Your task to perform on an android device: open app "The Home Depot" (install if not already installed) Image 0: 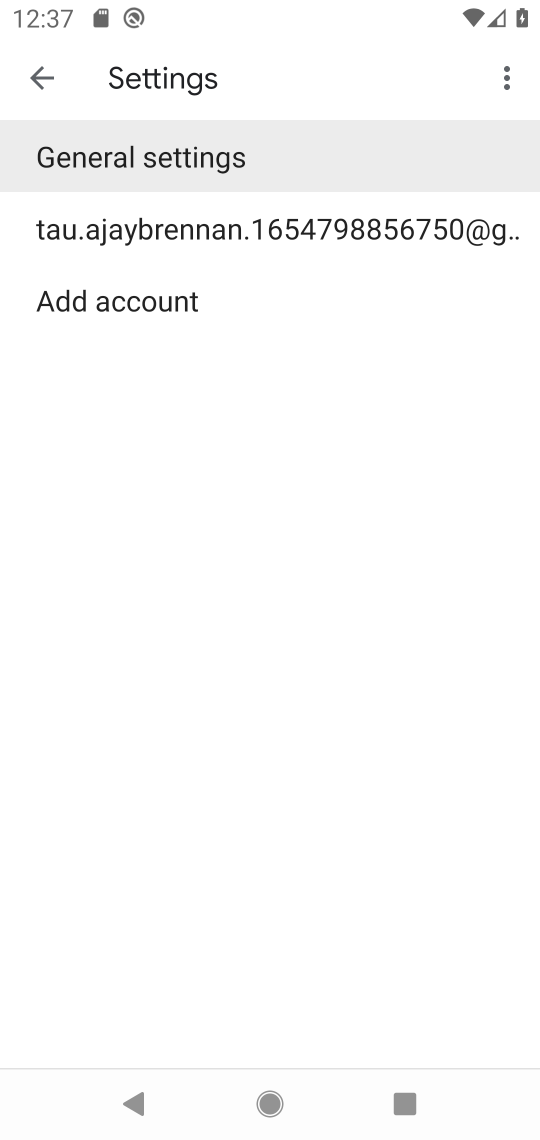
Step 0: press home button
Your task to perform on an android device: open app "The Home Depot" (install if not already installed) Image 1: 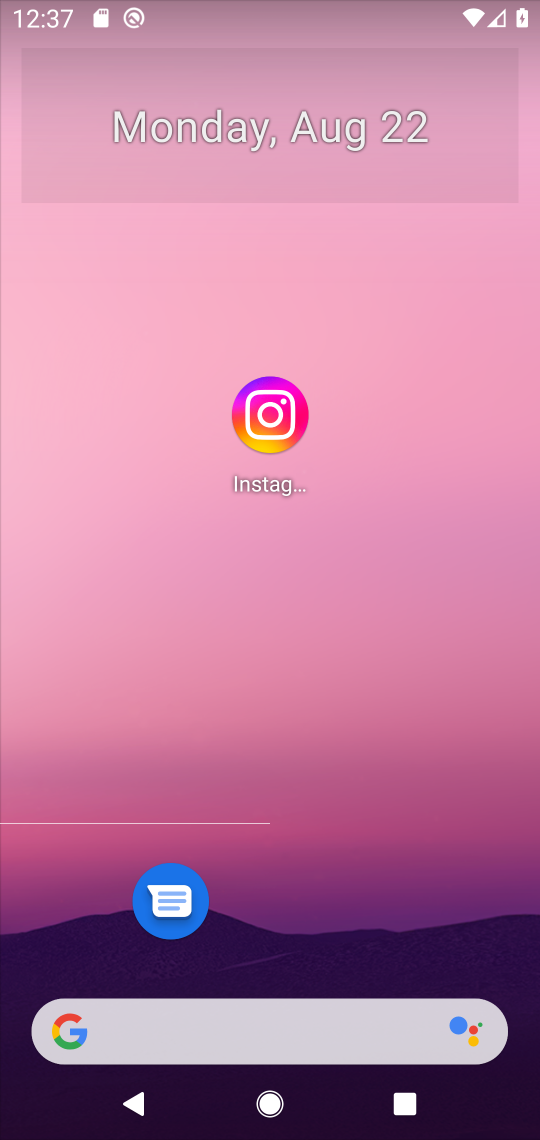
Step 1: drag from (404, 971) to (442, 165)
Your task to perform on an android device: open app "The Home Depot" (install if not already installed) Image 2: 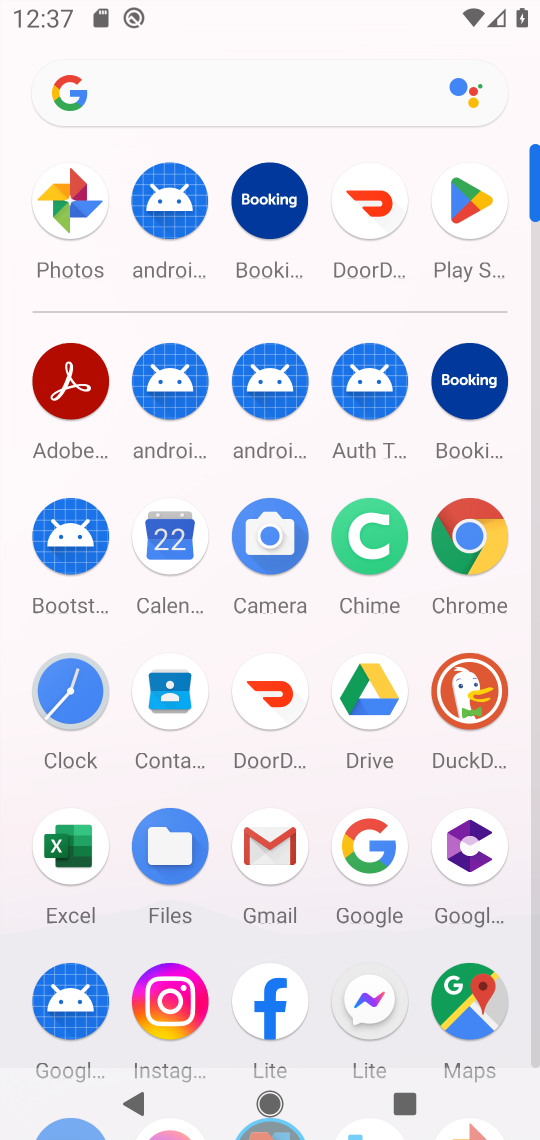
Step 2: click (476, 276)
Your task to perform on an android device: open app "The Home Depot" (install if not already installed) Image 3: 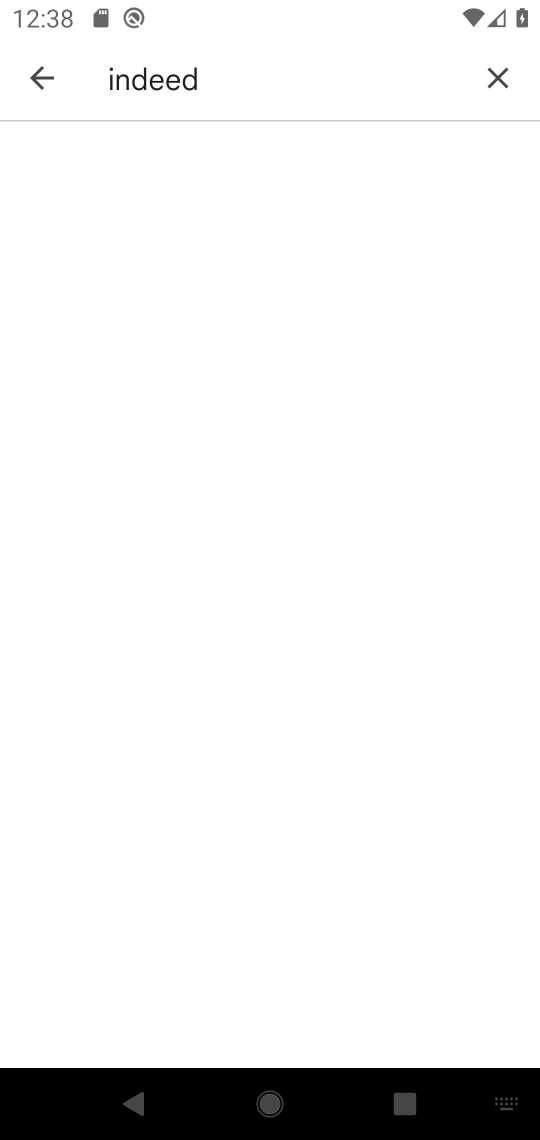
Step 3: click (500, 103)
Your task to perform on an android device: open app "The Home Depot" (install if not already installed) Image 4: 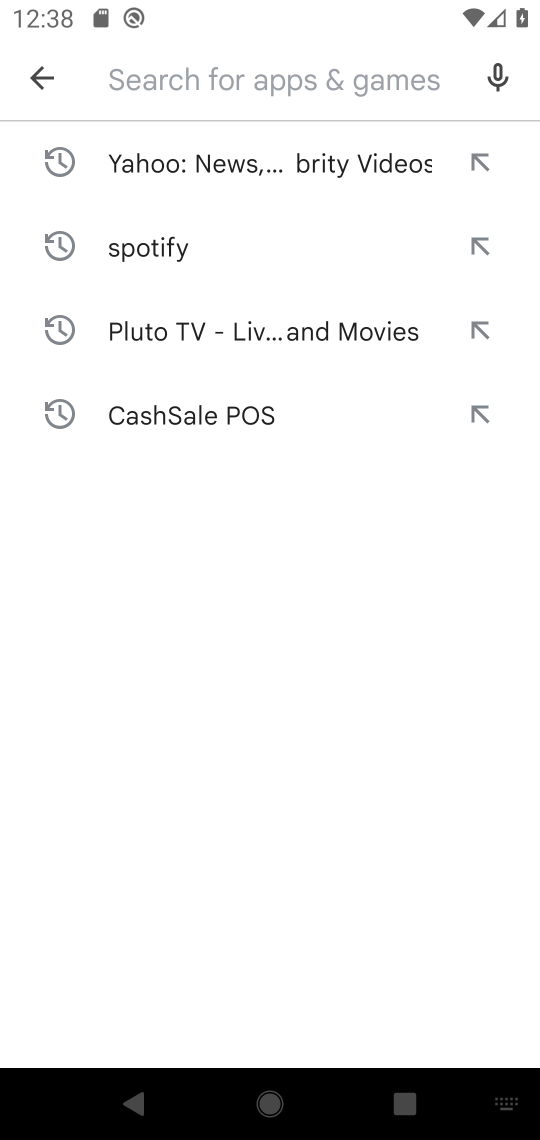
Step 4: type "the home depot"
Your task to perform on an android device: open app "The Home Depot" (install if not already installed) Image 5: 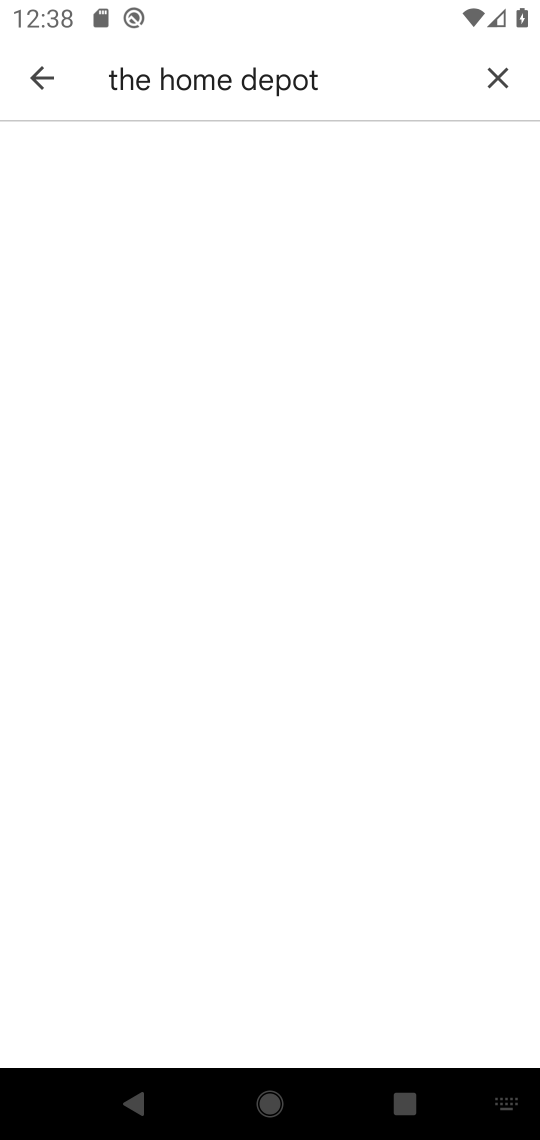
Step 5: task complete